Your task to perform on an android device: Search for sushi restaurants on Maps Image 0: 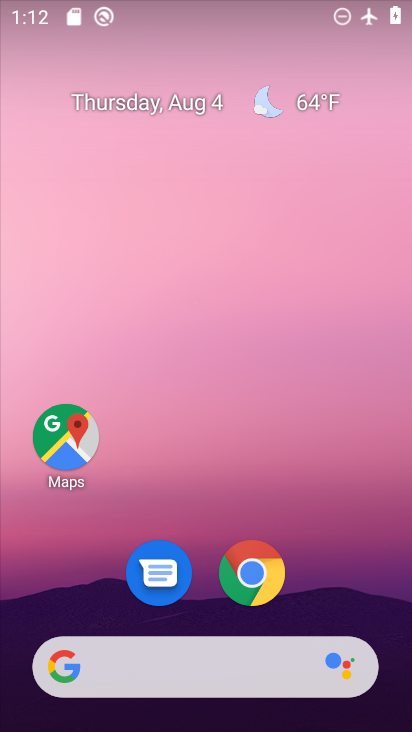
Step 0: drag from (342, 570) to (330, 150)
Your task to perform on an android device: Search for sushi restaurants on Maps Image 1: 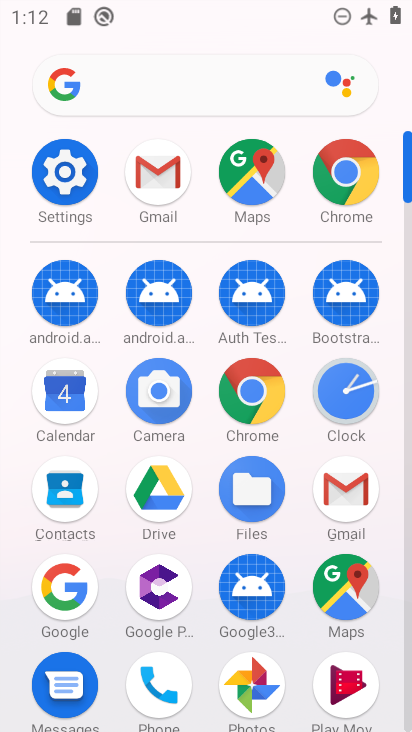
Step 1: click (351, 584)
Your task to perform on an android device: Search for sushi restaurants on Maps Image 2: 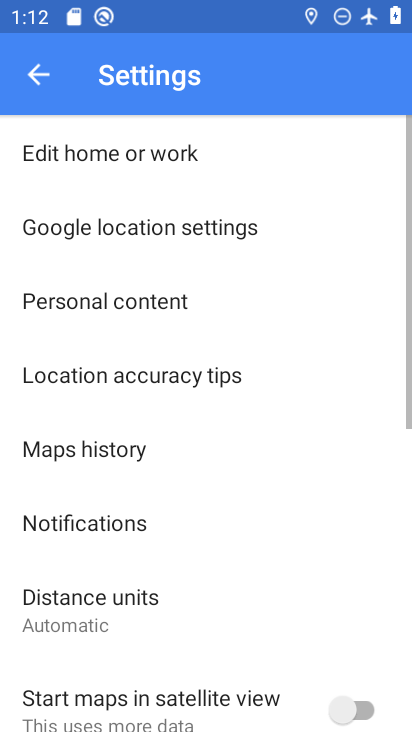
Step 2: click (41, 74)
Your task to perform on an android device: Search for sushi restaurants on Maps Image 3: 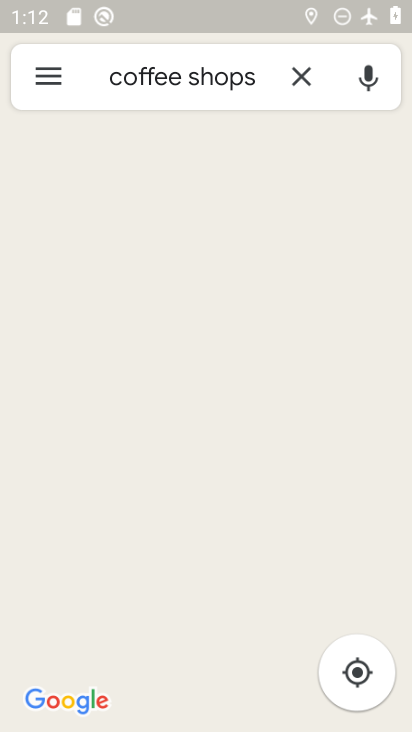
Step 3: click (233, 83)
Your task to perform on an android device: Search for sushi restaurants on Maps Image 4: 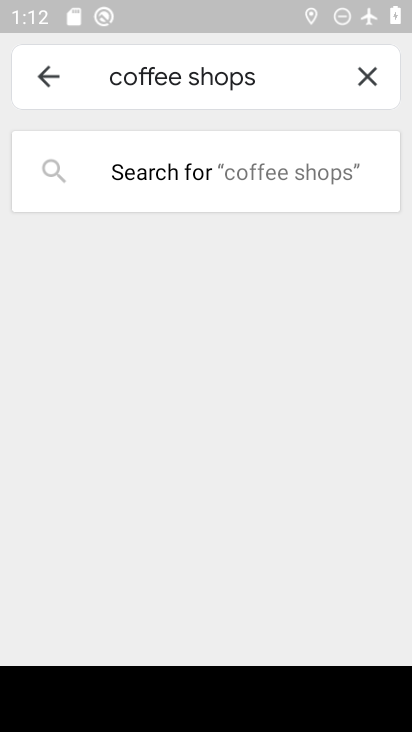
Step 4: click (364, 71)
Your task to perform on an android device: Search for sushi restaurants on Maps Image 5: 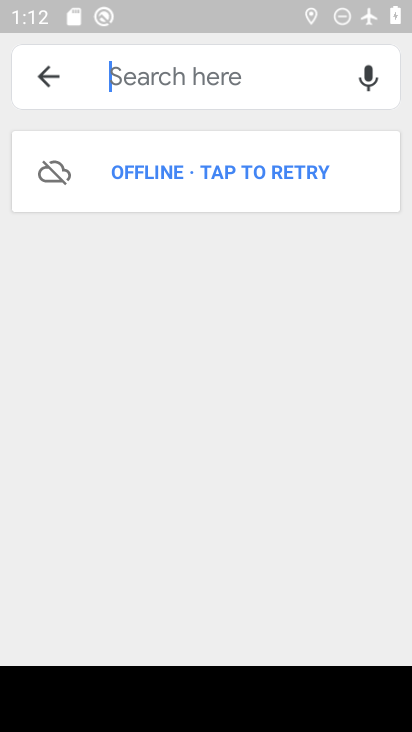
Step 5: type "sushi restaurants"
Your task to perform on an android device: Search for sushi restaurants on Maps Image 6: 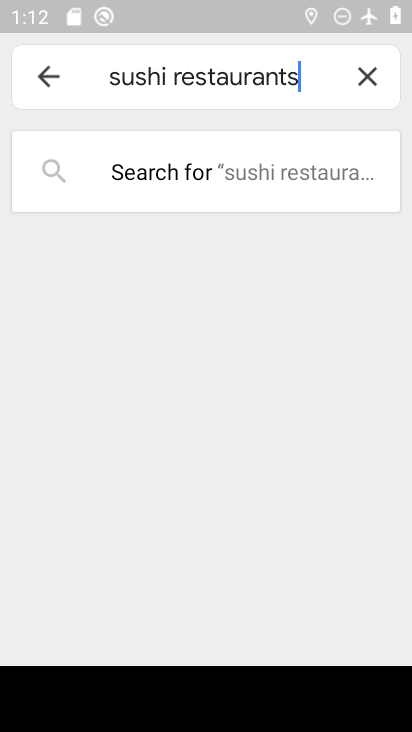
Step 6: press enter
Your task to perform on an android device: Search for sushi restaurants on Maps Image 7: 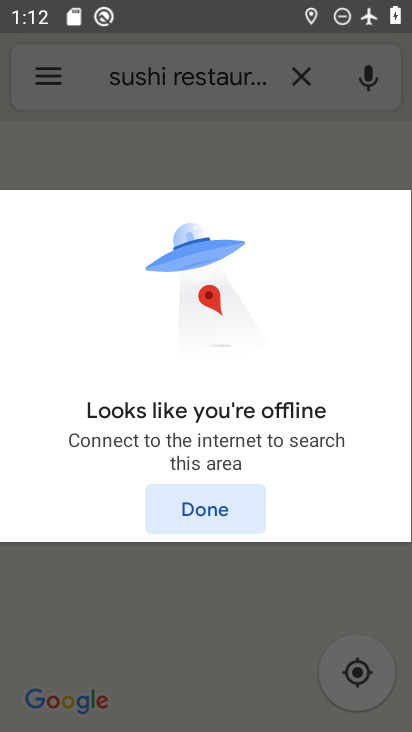
Step 7: task complete